Your task to perform on an android device: toggle translation in the chrome app Image 0: 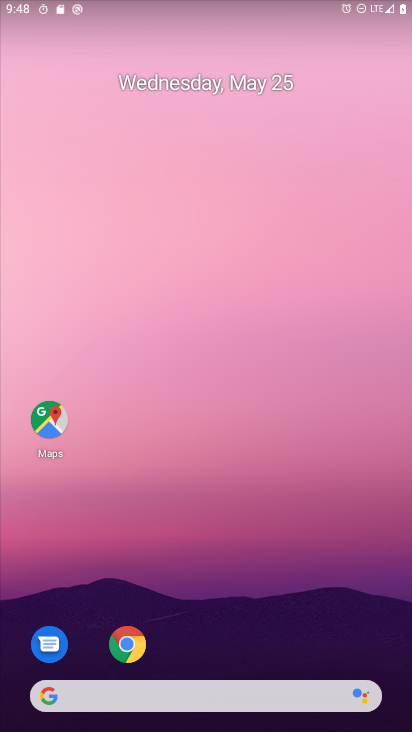
Step 0: drag from (375, 622) to (244, 114)
Your task to perform on an android device: toggle translation in the chrome app Image 1: 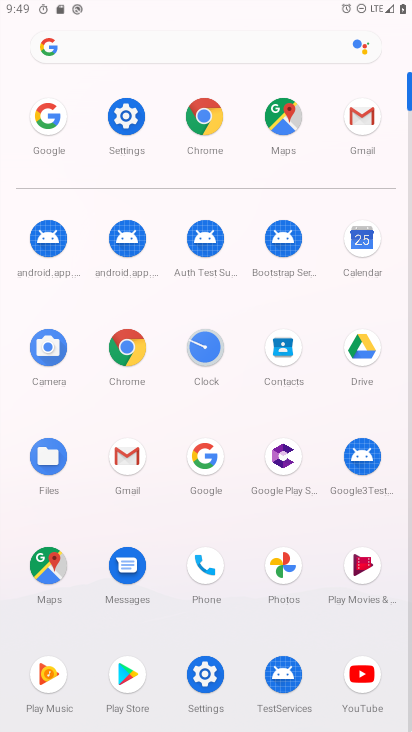
Step 1: click (129, 354)
Your task to perform on an android device: toggle translation in the chrome app Image 2: 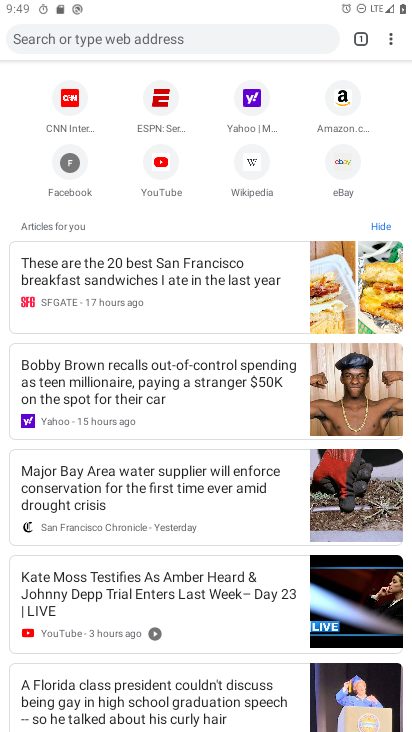
Step 2: click (388, 34)
Your task to perform on an android device: toggle translation in the chrome app Image 3: 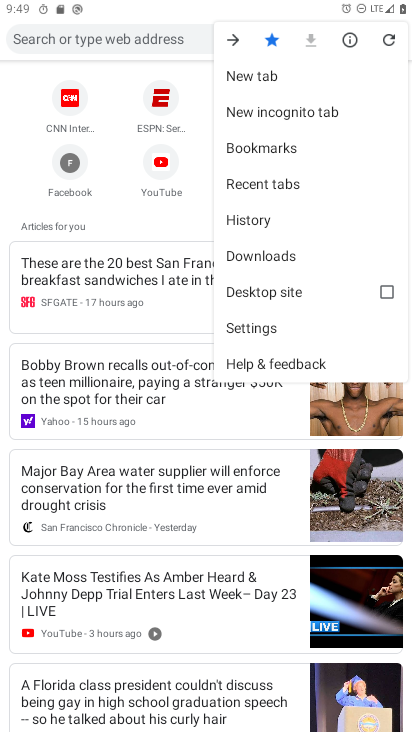
Step 3: click (274, 319)
Your task to perform on an android device: toggle translation in the chrome app Image 4: 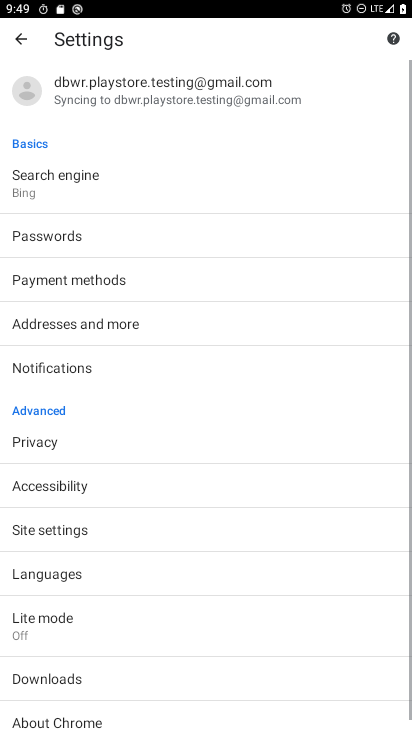
Step 4: click (115, 576)
Your task to perform on an android device: toggle translation in the chrome app Image 5: 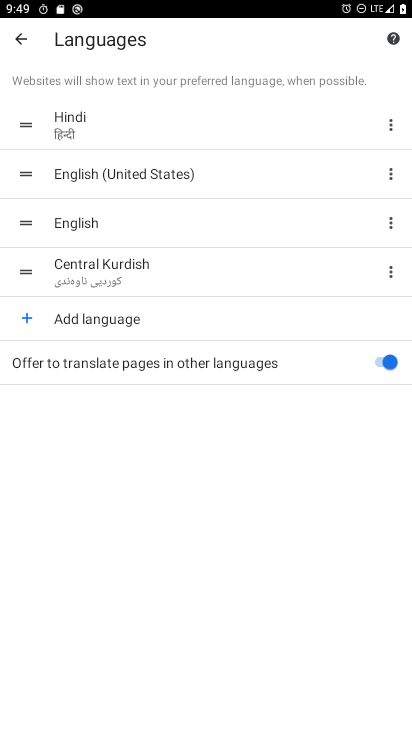
Step 5: click (351, 349)
Your task to perform on an android device: toggle translation in the chrome app Image 6: 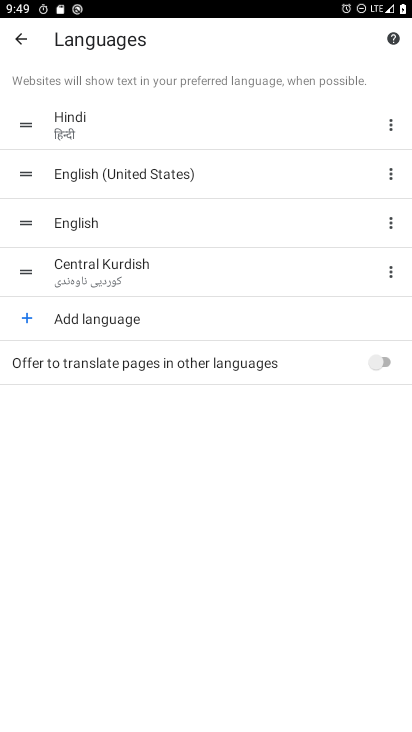
Step 6: task complete